Your task to perform on an android device: read, delete, or share a saved page in the chrome app Image 0: 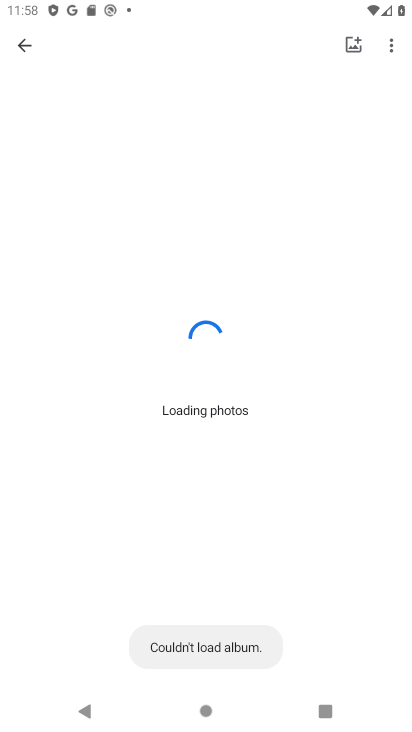
Step 0: press home button
Your task to perform on an android device: read, delete, or share a saved page in the chrome app Image 1: 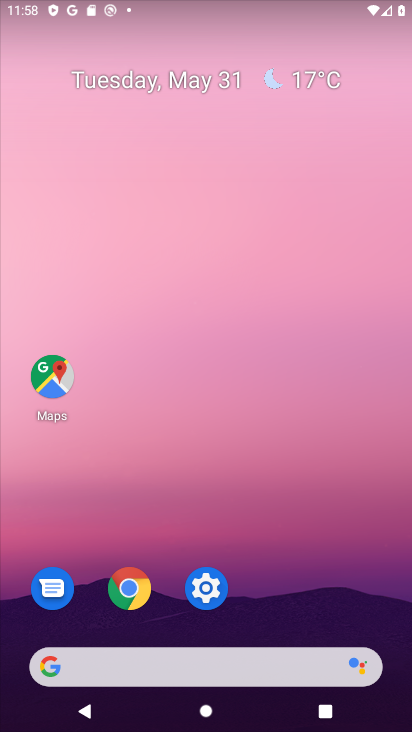
Step 1: click (125, 593)
Your task to perform on an android device: read, delete, or share a saved page in the chrome app Image 2: 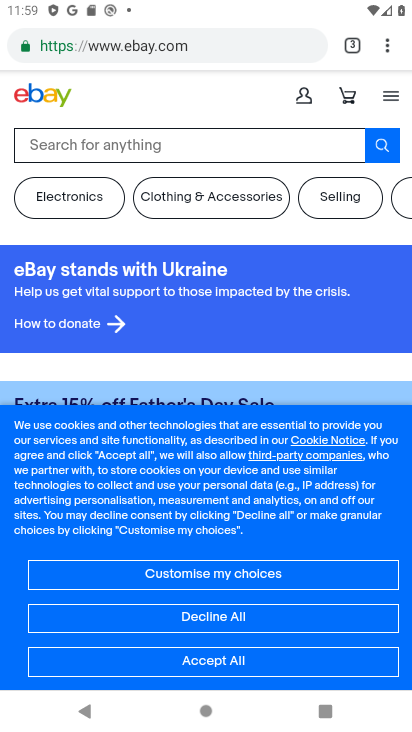
Step 2: click (392, 48)
Your task to perform on an android device: read, delete, or share a saved page in the chrome app Image 3: 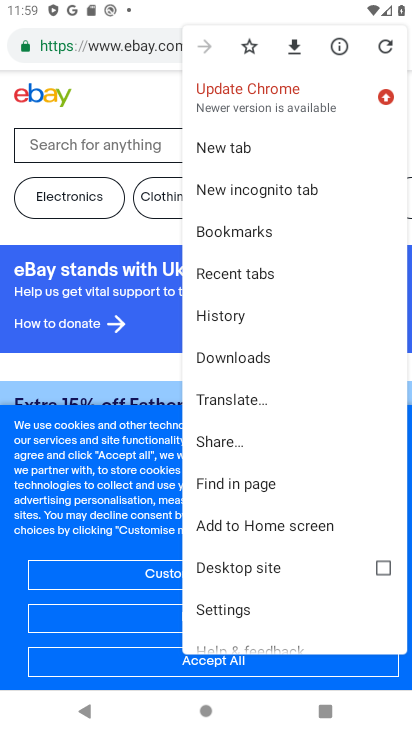
Step 3: click (226, 440)
Your task to perform on an android device: read, delete, or share a saved page in the chrome app Image 4: 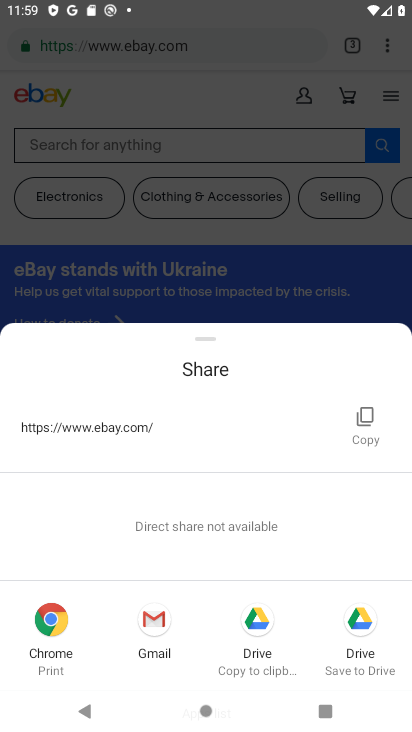
Step 4: press home button
Your task to perform on an android device: read, delete, or share a saved page in the chrome app Image 5: 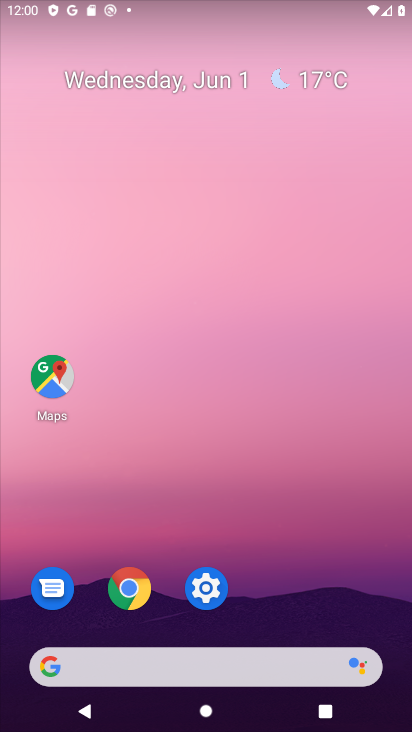
Step 5: click (252, 486)
Your task to perform on an android device: read, delete, or share a saved page in the chrome app Image 6: 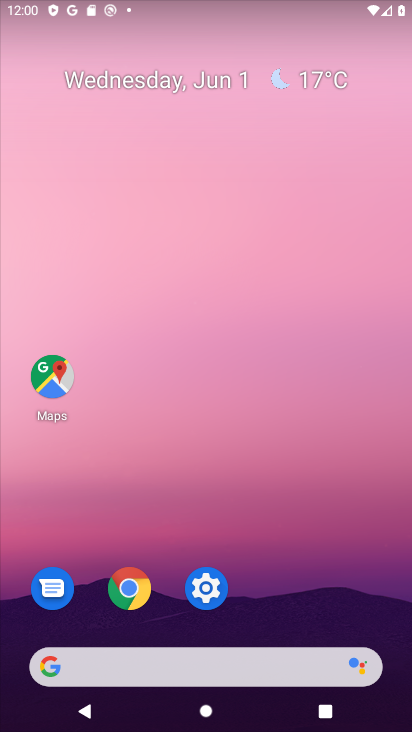
Step 6: click (116, 595)
Your task to perform on an android device: read, delete, or share a saved page in the chrome app Image 7: 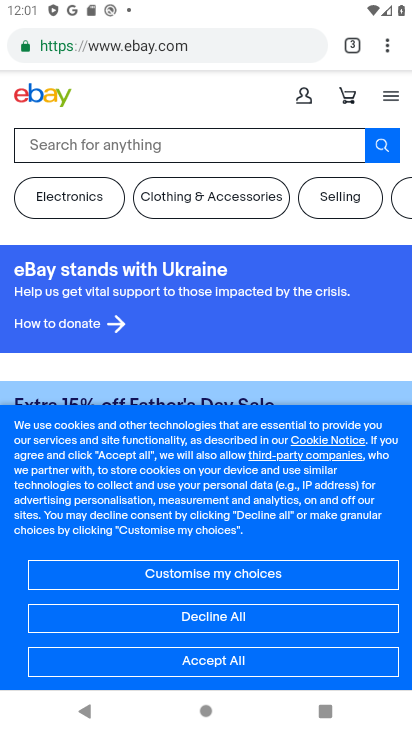
Step 7: click (391, 41)
Your task to perform on an android device: read, delete, or share a saved page in the chrome app Image 8: 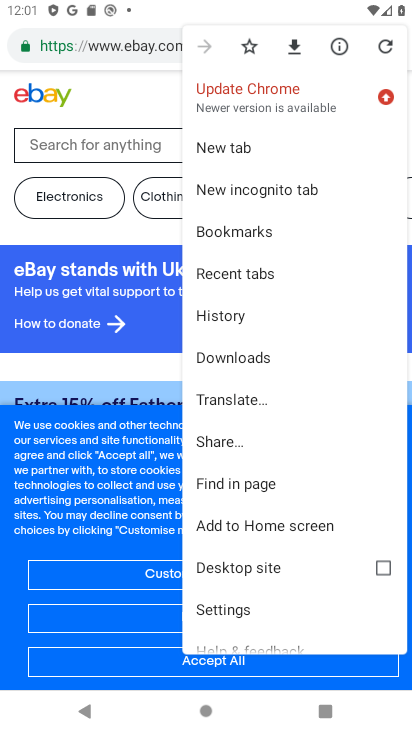
Step 8: click (219, 440)
Your task to perform on an android device: read, delete, or share a saved page in the chrome app Image 9: 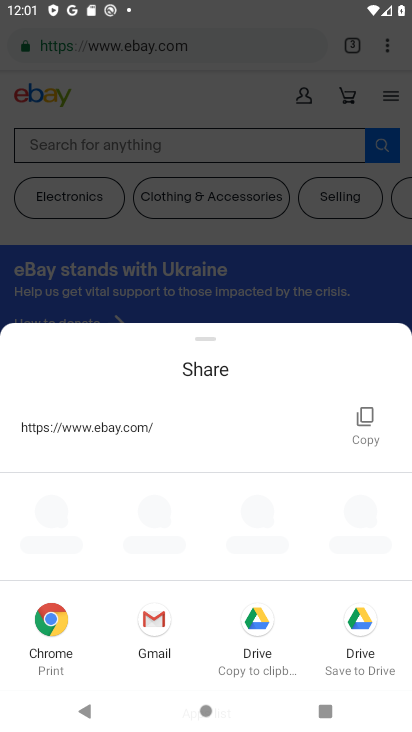
Step 9: task complete